Your task to perform on an android device: Open sound settings Image 0: 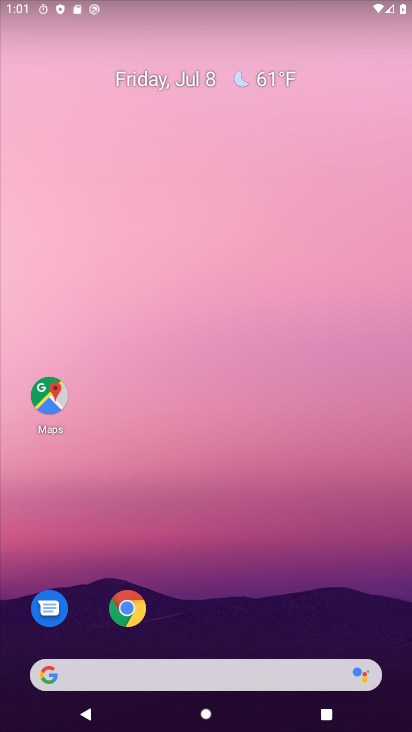
Step 0: drag from (197, 587) to (273, 117)
Your task to perform on an android device: Open sound settings Image 1: 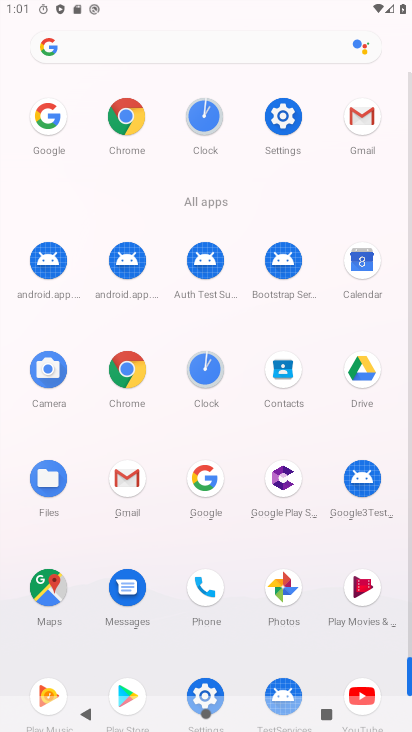
Step 1: click (281, 114)
Your task to perform on an android device: Open sound settings Image 2: 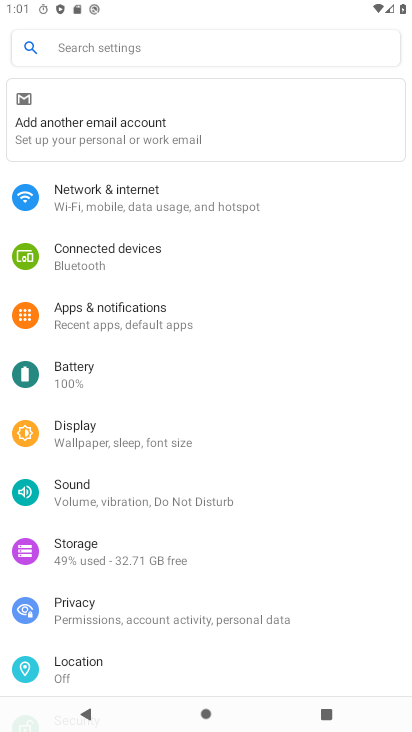
Step 2: click (108, 501)
Your task to perform on an android device: Open sound settings Image 3: 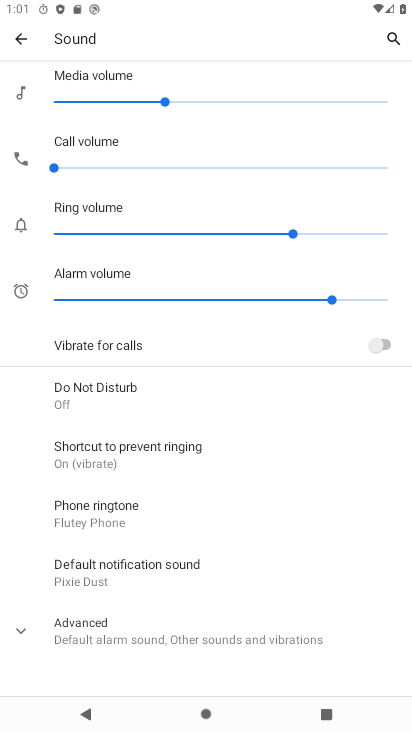
Step 3: task complete